Your task to perform on an android device: open a new tab in the chrome app Image 0: 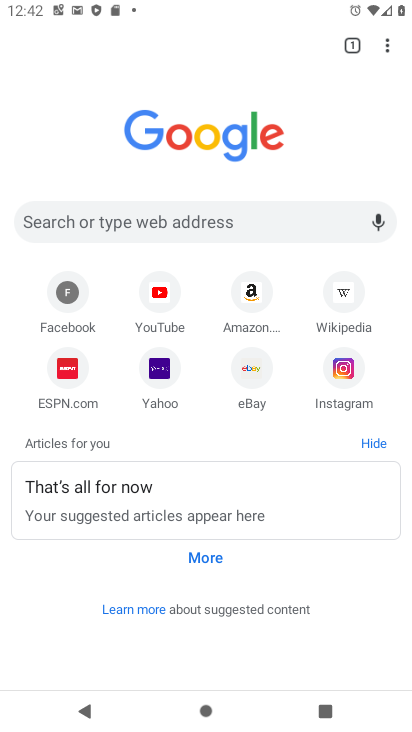
Step 0: click (385, 49)
Your task to perform on an android device: open a new tab in the chrome app Image 1: 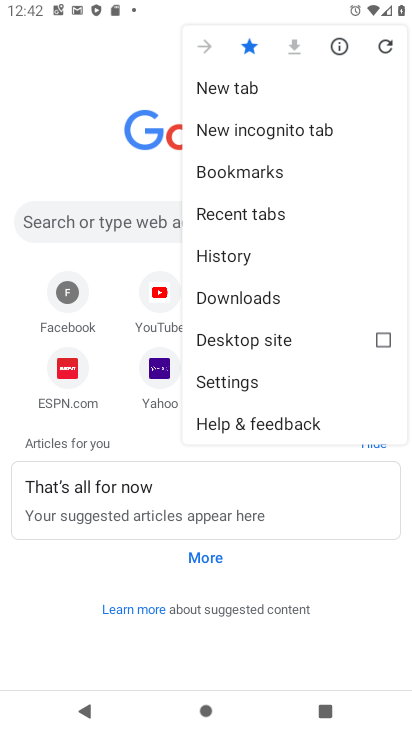
Step 1: click (255, 87)
Your task to perform on an android device: open a new tab in the chrome app Image 2: 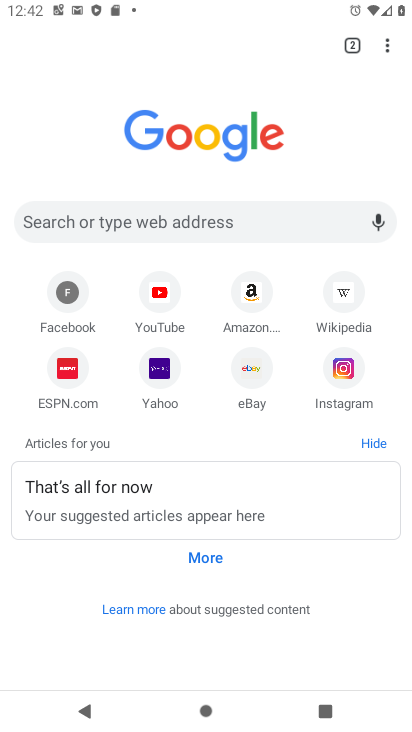
Step 2: task complete